Your task to perform on an android device: Go to Google Image 0: 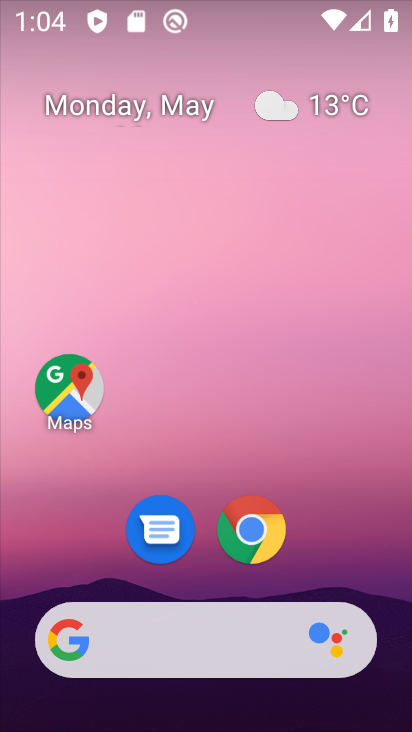
Step 0: drag from (315, 564) to (313, 1)
Your task to perform on an android device: Go to Google Image 1: 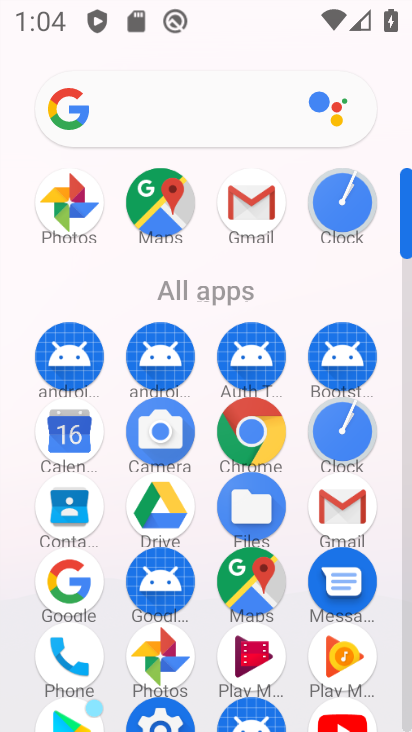
Step 1: click (79, 588)
Your task to perform on an android device: Go to Google Image 2: 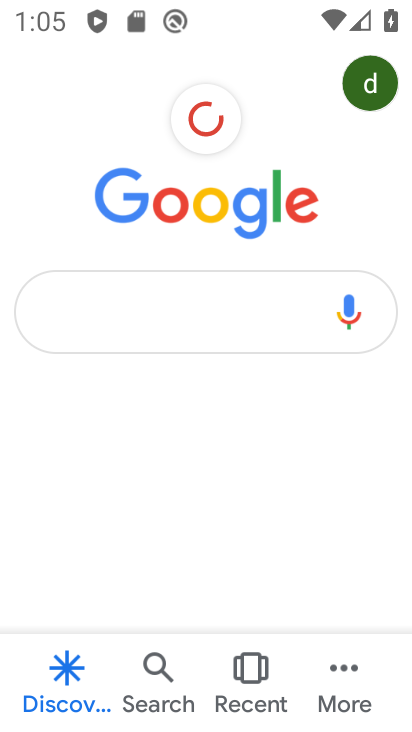
Step 2: task complete